Your task to perform on an android device: What's the weather going to be this weekend? Image 0: 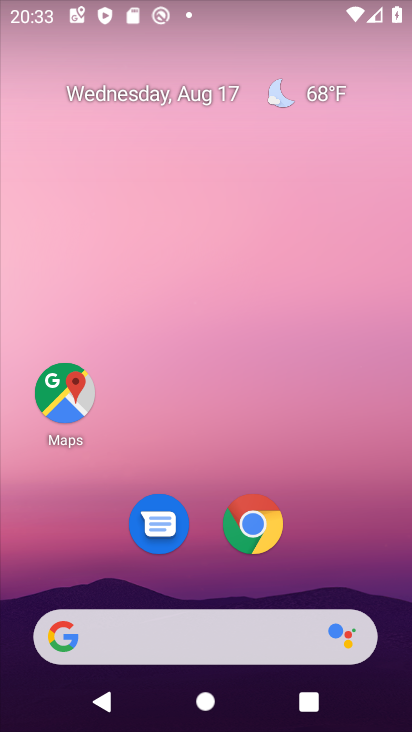
Step 0: click (326, 97)
Your task to perform on an android device: What's the weather going to be this weekend? Image 1: 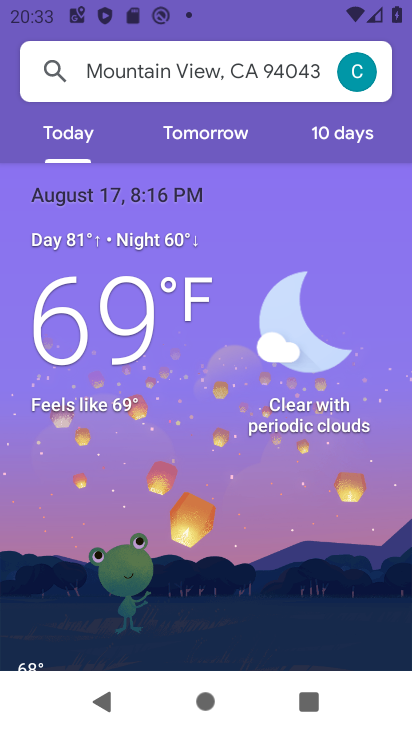
Step 1: click (337, 133)
Your task to perform on an android device: What's the weather going to be this weekend? Image 2: 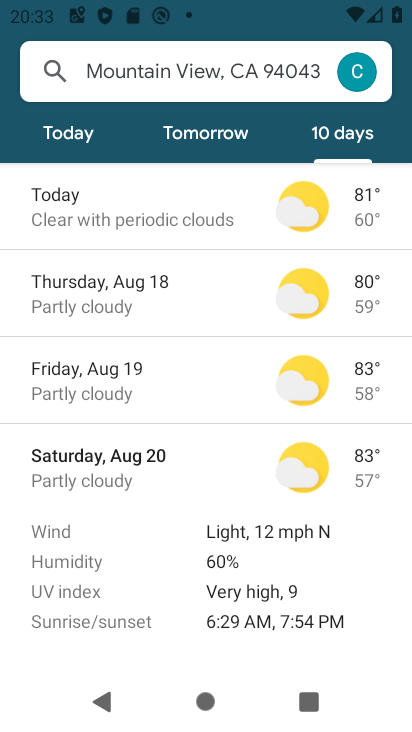
Step 2: task complete